Your task to perform on an android device: Open calendar and show me the third week of next month Image 0: 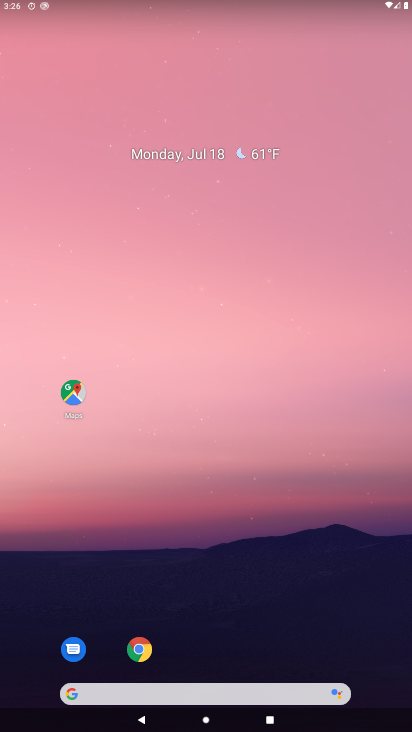
Step 0: drag from (39, 694) to (258, 146)
Your task to perform on an android device: Open calendar and show me the third week of next month Image 1: 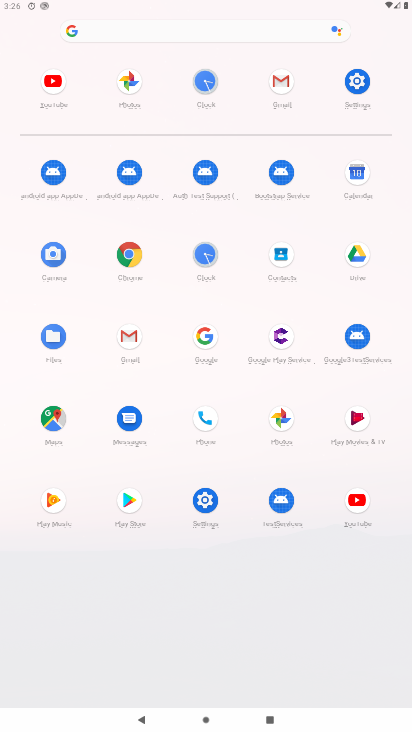
Step 1: click (386, 176)
Your task to perform on an android device: Open calendar and show me the third week of next month Image 2: 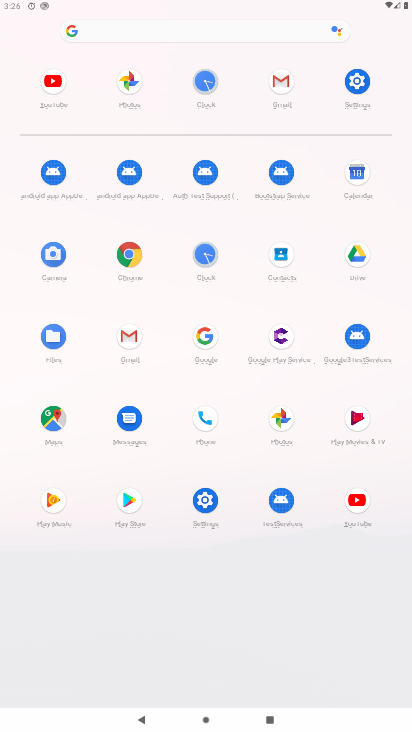
Step 2: click (370, 171)
Your task to perform on an android device: Open calendar and show me the third week of next month Image 3: 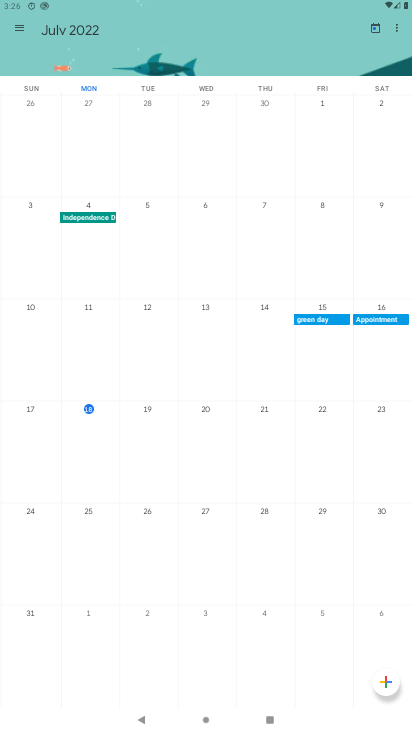
Step 3: drag from (381, 370) to (3, 432)
Your task to perform on an android device: Open calendar and show me the third week of next month Image 4: 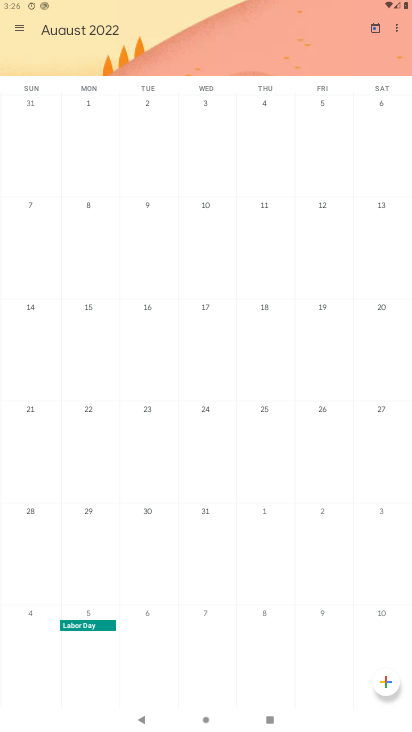
Step 4: click (86, 325)
Your task to perform on an android device: Open calendar and show me the third week of next month Image 5: 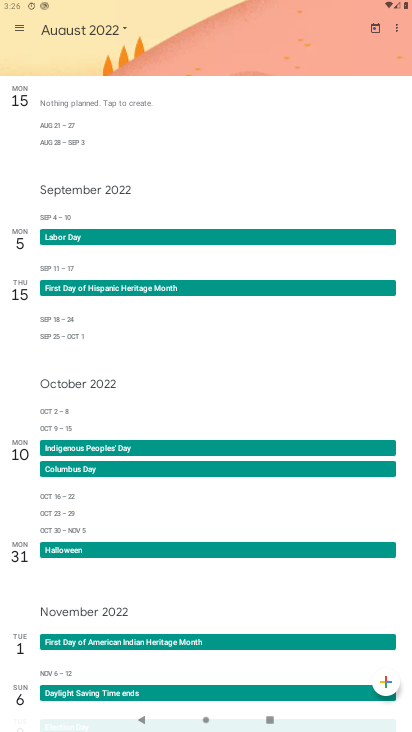
Step 5: task complete